Your task to perform on an android device: toggle translation in the chrome app Image 0: 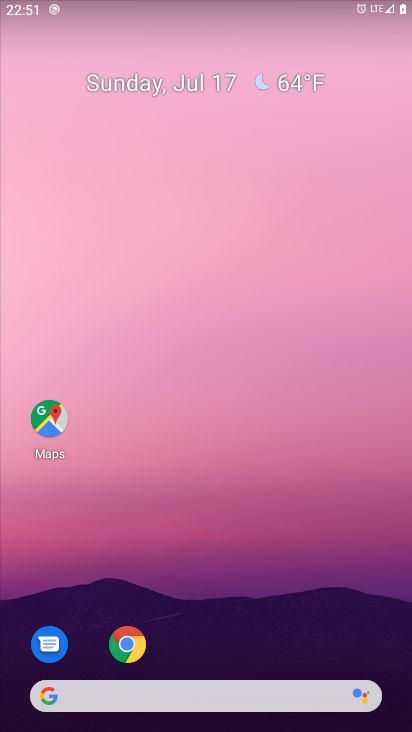
Step 0: press home button
Your task to perform on an android device: toggle translation in the chrome app Image 1: 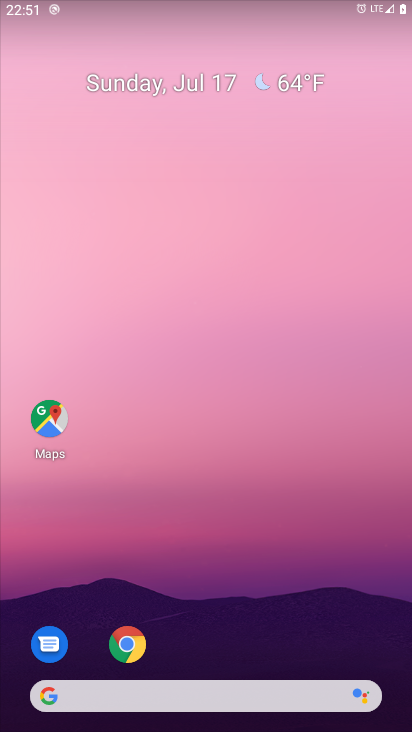
Step 1: click (121, 639)
Your task to perform on an android device: toggle translation in the chrome app Image 2: 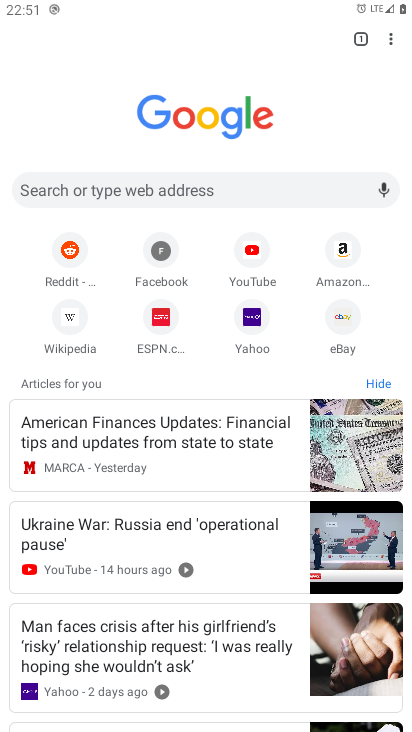
Step 2: drag from (394, 38) to (259, 330)
Your task to perform on an android device: toggle translation in the chrome app Image 3: 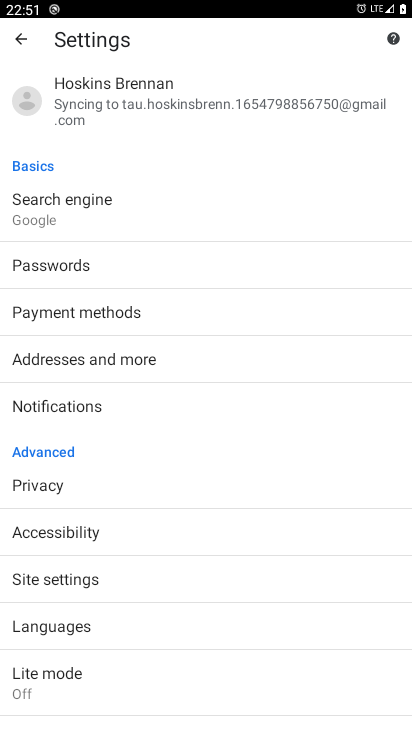
Step 3: click (55, 628)
Your task to perform on an android device: toggle translation in the chrome app Image 4: 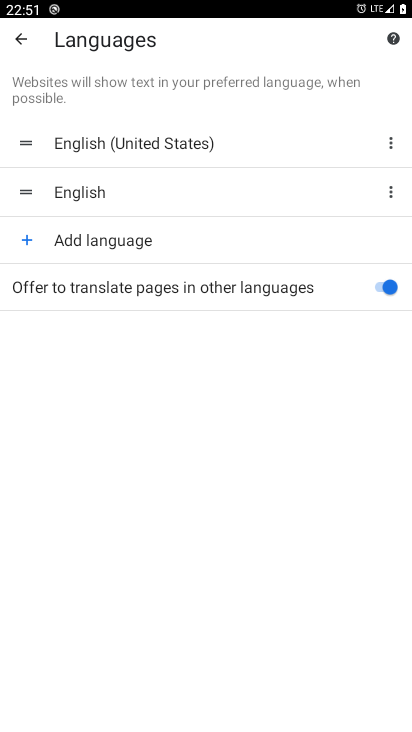
Step 4: click (395, 280)
Your task to perform on an android device: toggle translation in the chrome app Image 5: 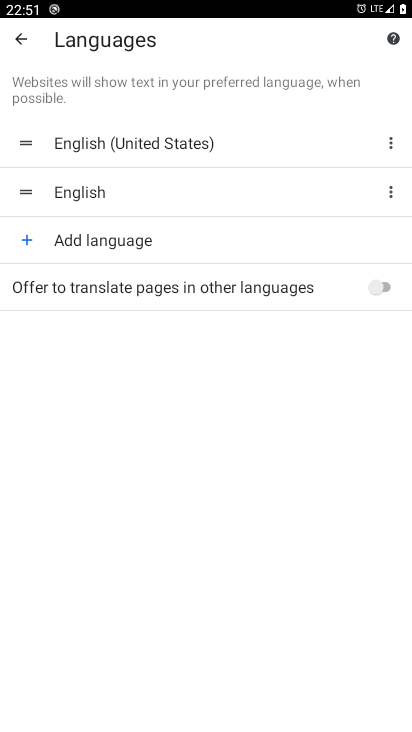
Step 5: task complete